Your task to perform on an android device: Go to sound settings Image 0: 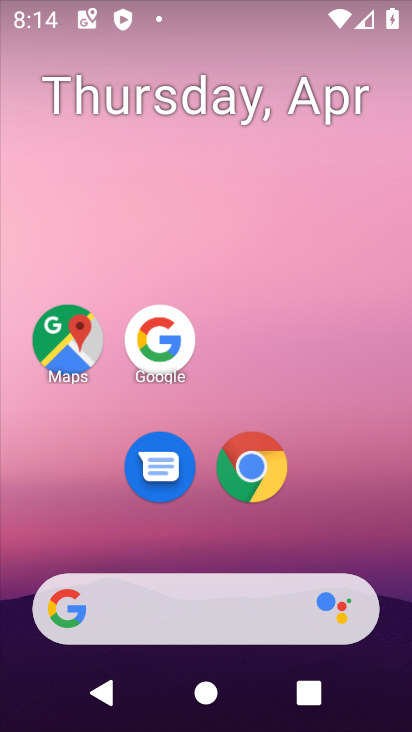
Step 0: drag from (223, 596) to (144, 7)
Your task to perform on an android device: Go to sound settings Image 1: 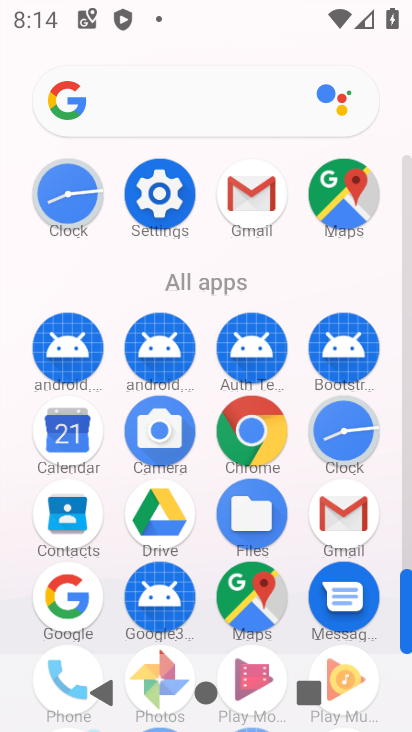
Step 1: click (169, 167)
Your task to perform on an android device: Go to sound settings Image 2: 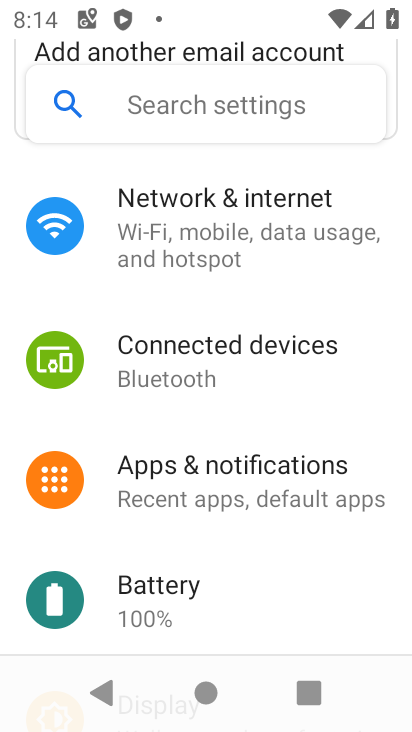
Step 2: drag from (197, 556) to (234, 123)
Your task to perform on an android device: Go to sound settings Image 3: 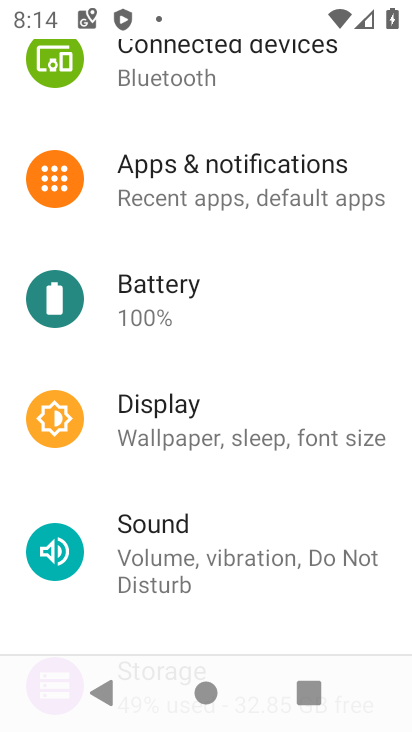
Step 3: click (146, 573)
Your task to perform on an android device: Go to sound settings Image 4: 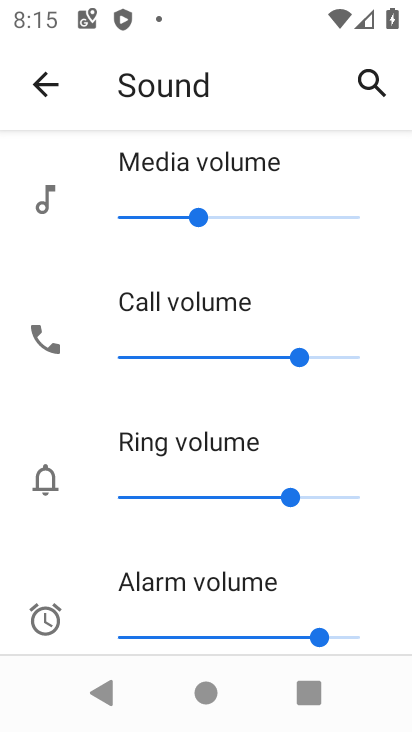
Step 4: task complete